Your task to perform on an android device: turn off javascript in the chrome app Image 0: 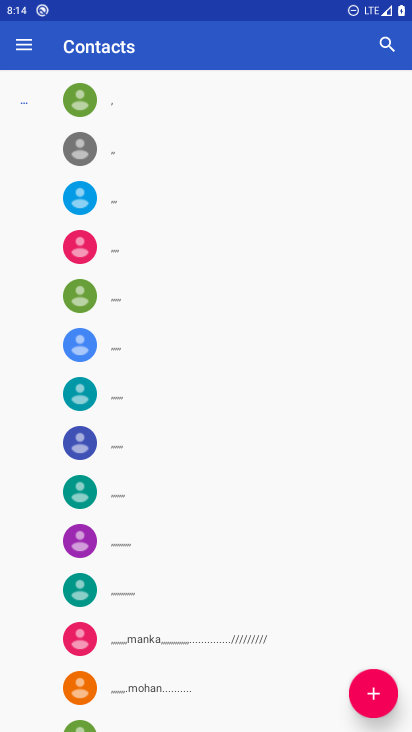
Step 0: press home button
Your task to perform on an android device: turn off javascript in the chrome app Image 1: 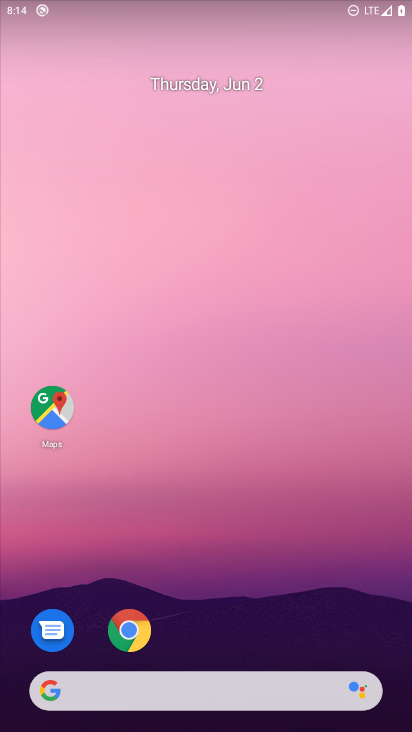
Step 1: click (126, 637)
Your task to perform on an android device: turn off javascript in the chrome app Image 2: 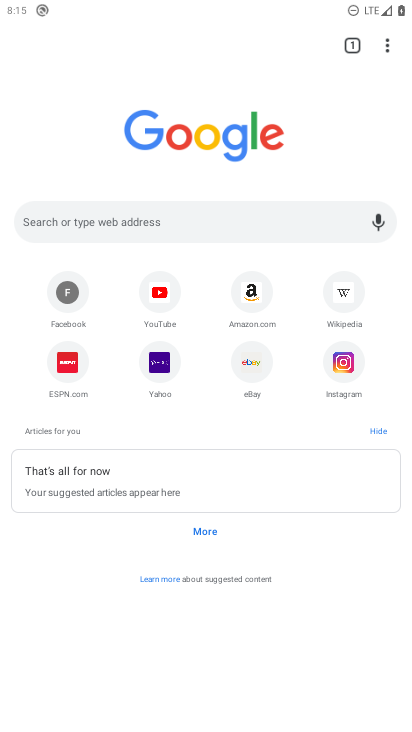
Step 2: click (387, 53)
Your task to perform on an android device: turn off javascript in the chrome app Image 3: 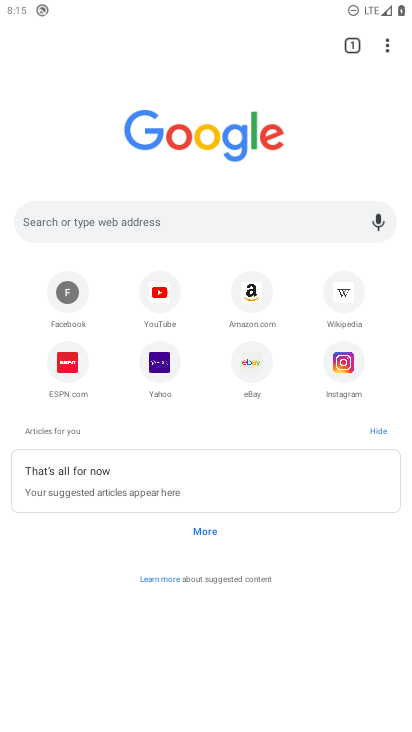
Step 3: click (387, 43)
Your task to perform on an android device: turn off javascript in the chrome app Image 4: 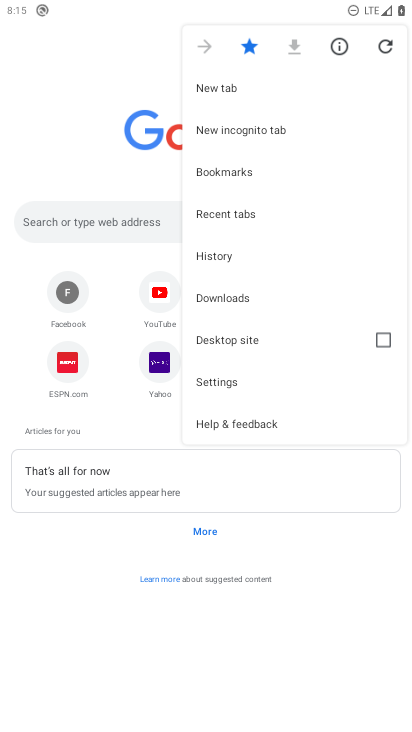
Step 4: click (240, 386)
Your task to perform on an android device: turn off javascript in the chrome app Image 5: 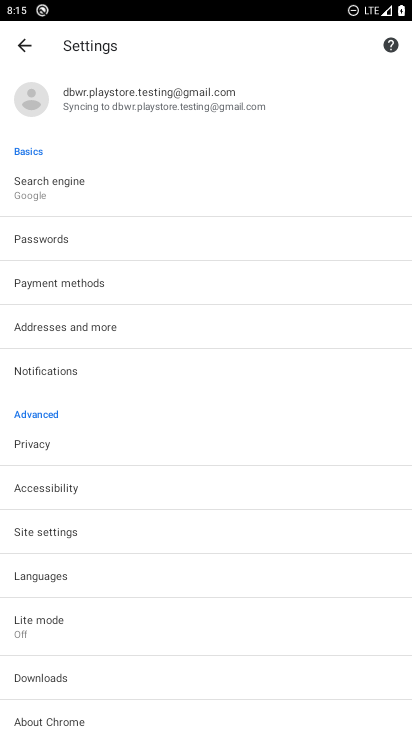
Step 5: click (51, 532)
Your task to perform on an android device: turn off javascript in the chrome app Image 6: 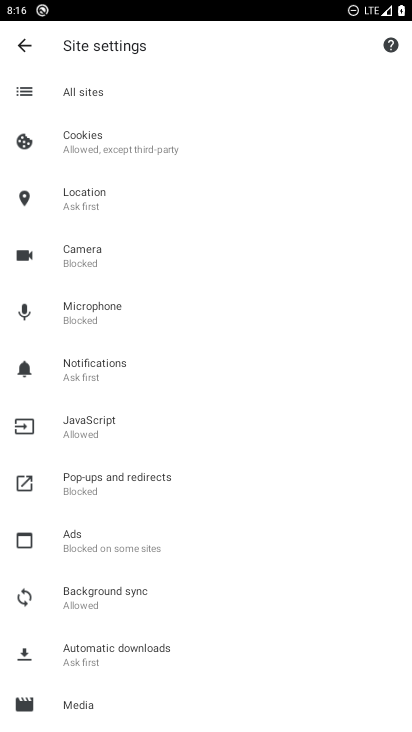
Step 6: click (99, 426)
Your task to perform on an android device: turn off javascript in the chrome app Image 7: 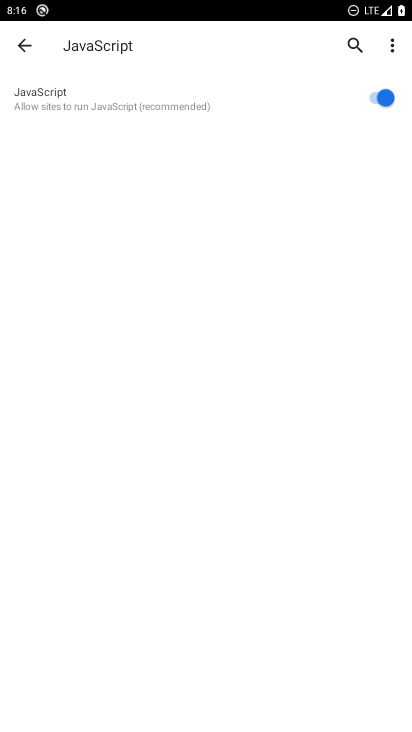
Step 7: click (384, 106)
Your task to perform on an android device: turn off javascript in the chrome app Image 8: 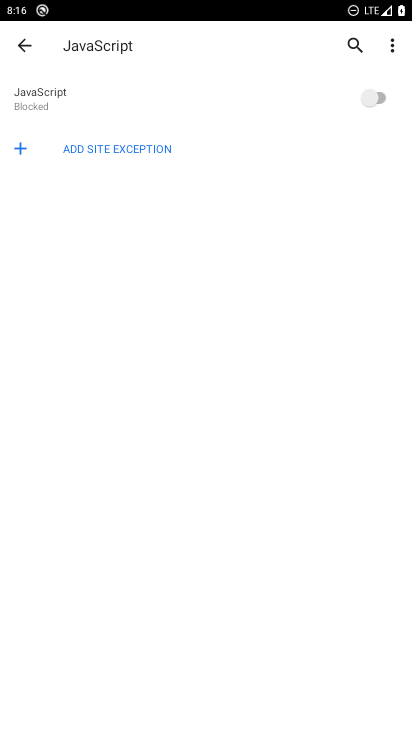
Step 8: task complete